Your task to perform on an android device: Search for sushi restaurants on Maps Image 0: 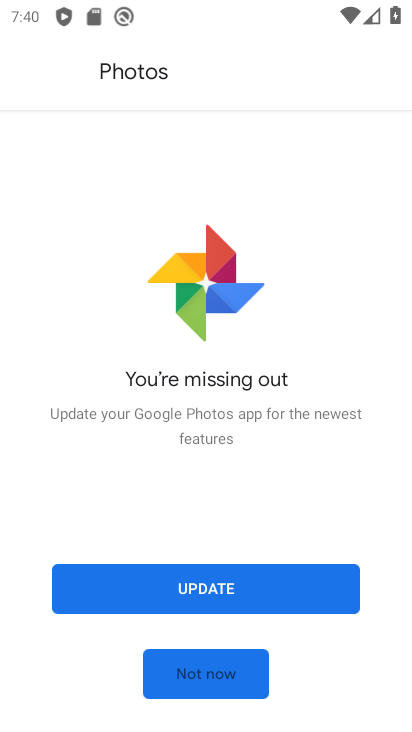
Step 0: press home button
Your task to perform on an android device: Search for sushi restaurants on Maps Image 1: 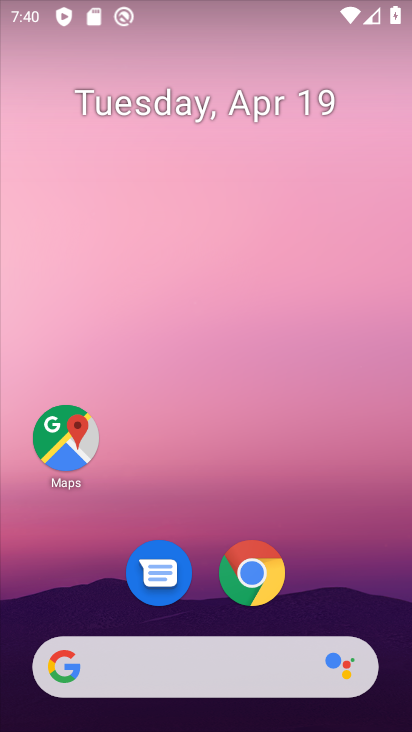
Step 1: drag from (296, 670) to (217, 243)
Your task to perform on an android device: Search for sushi restaurants on Maps Image 2: 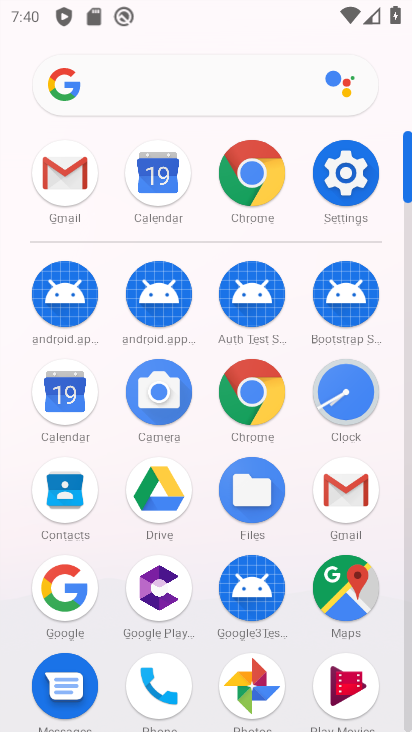
Step 2: click (334, 586)
Your task to perform on an android device: Search for sushi restaurants on Maps Image 3: 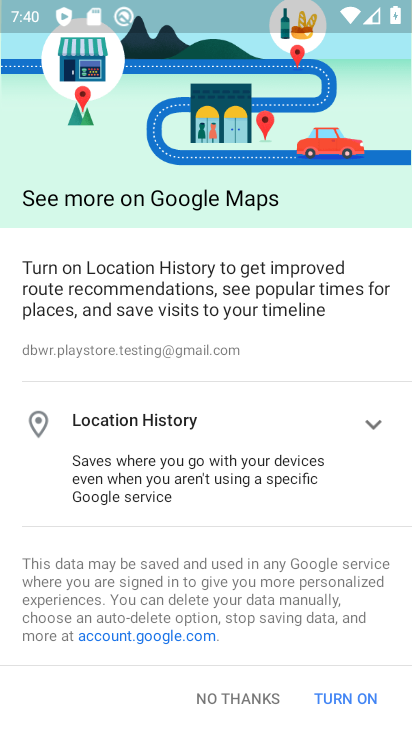
Step 3: click (227, 701)
Your task to perform on an android device: Search for sushi restaurants on Maps Image 4: 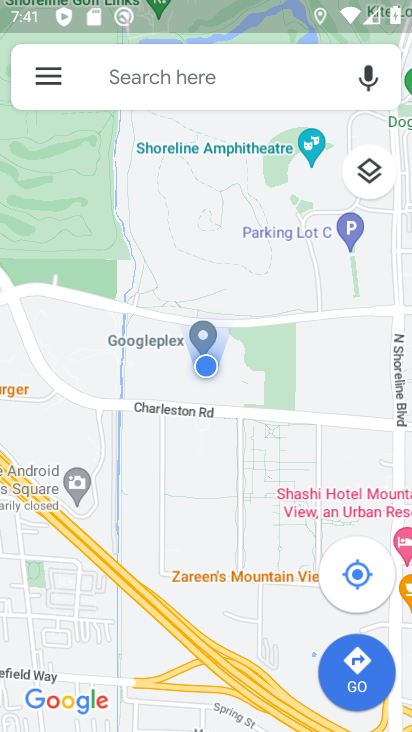
Step 4: click (180, 77)
Your task to perform on an android device: Search for sushi restaurants on Maps Image 5: 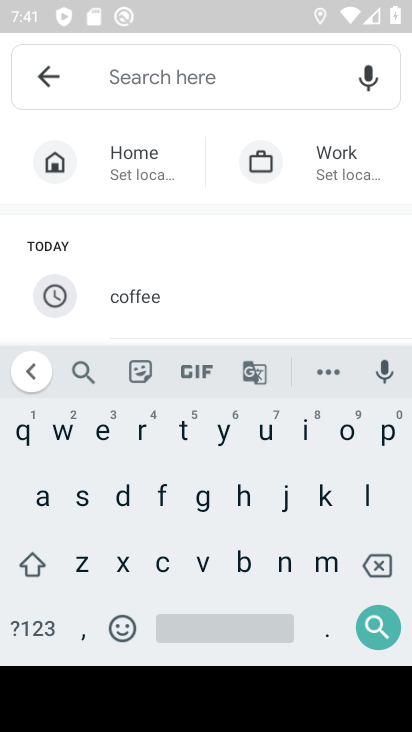
Step 5: click (84, 500)
Your task to perform on an android device: Search for sushi restaurants on Maps Image 6: 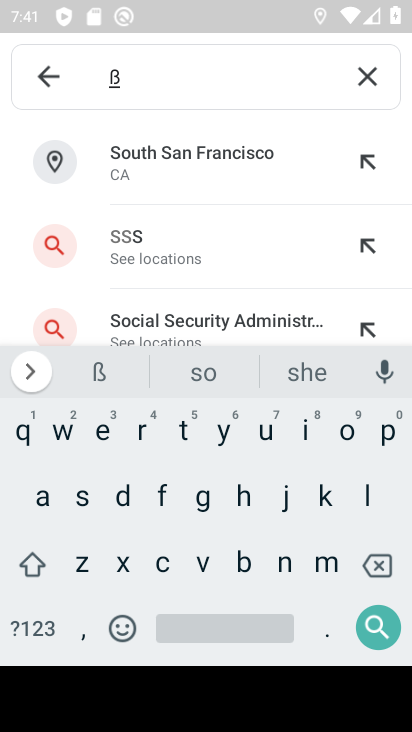
Step 6: click (391, 561)
Your task to perform on an android device: Search for sushi restaurants on Maps Image 7: 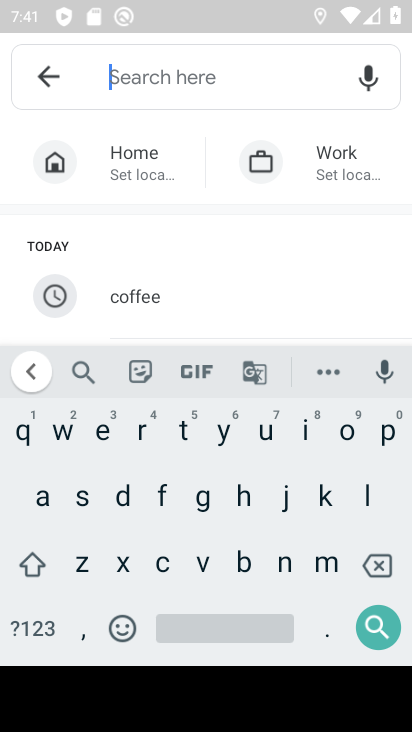
Step 7: click (83, 497)
Your task to perform on an android device: Search for sushi restaurants on Maps Image 8: 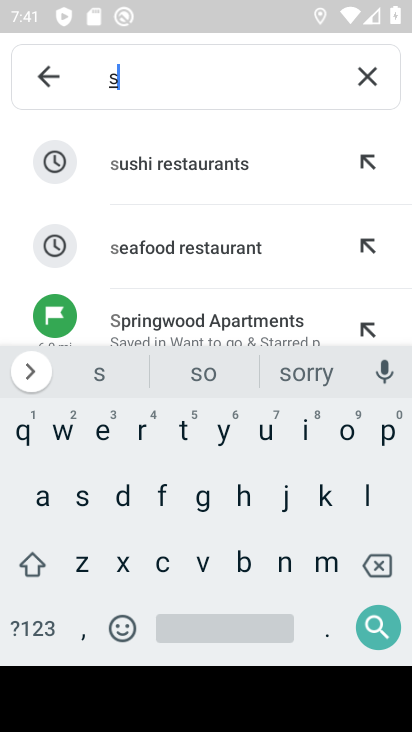
Step 8: click (189, 160)
Your task to perform on an android device: Search for sushi restaurants on Maps Image 9: 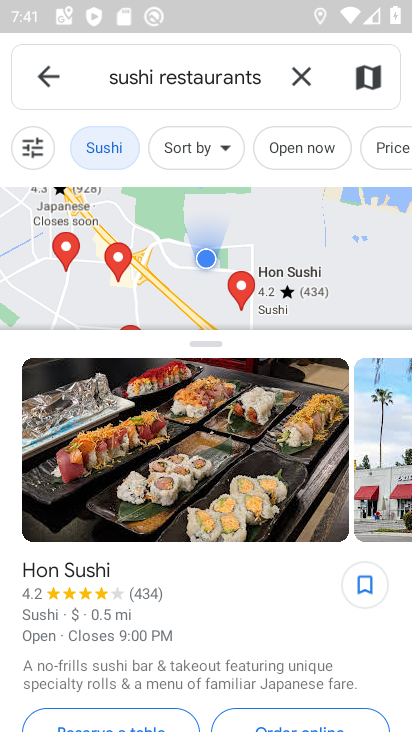
Step 9: task complete